Your task to perform on an android device: open chrome privacy settings Image 0: 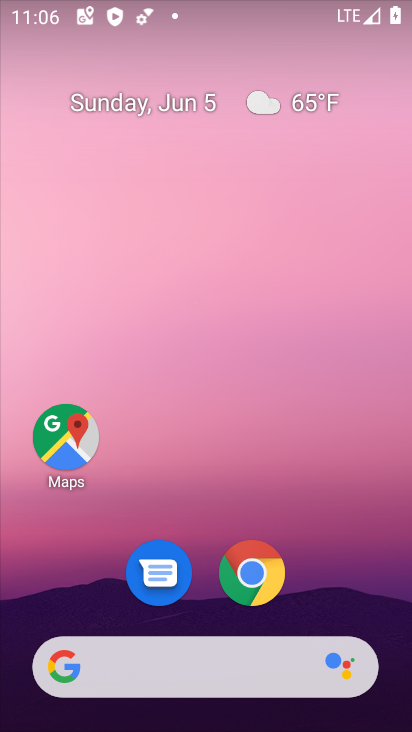
Step 0: drag from (214, 609) to (196, 183)
Your task to perform on an android device: open chrome privacy settings Image 1: 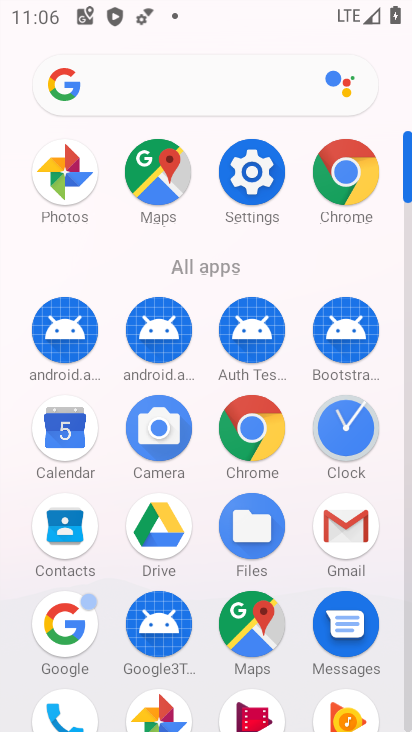
Step 1: click (225, 77)
Your task to perform on an android device: open chrome privacy settings Image 2: 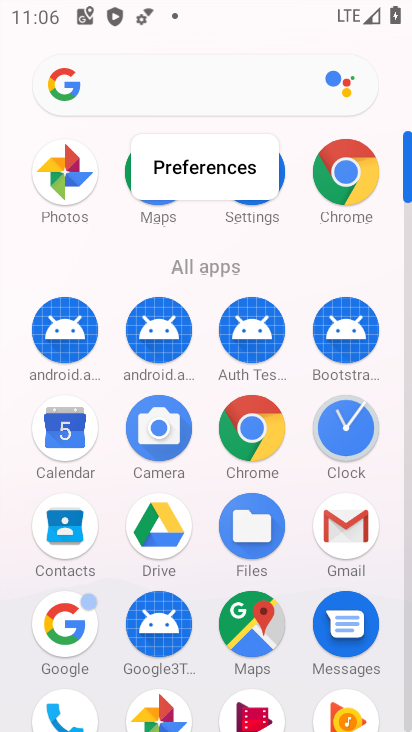
Step 2: drag from (209, 281) to (236, 88)
Your task to perform on an android device: open chrome privacy settings Image 3: 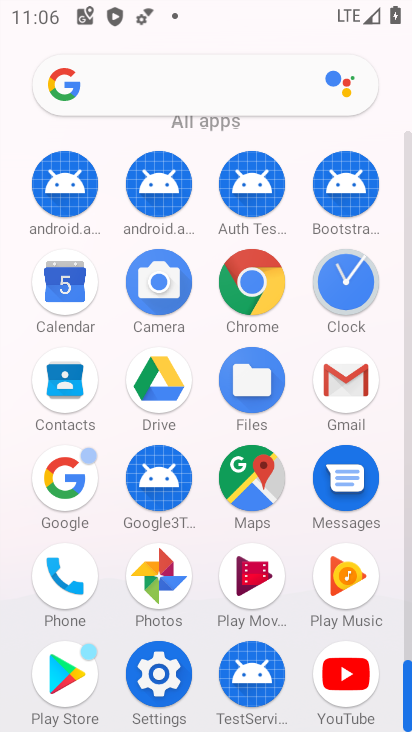
Step 3: click (263, 281)
Your task to perform on an android device: open chrome privacy settings Image 4: 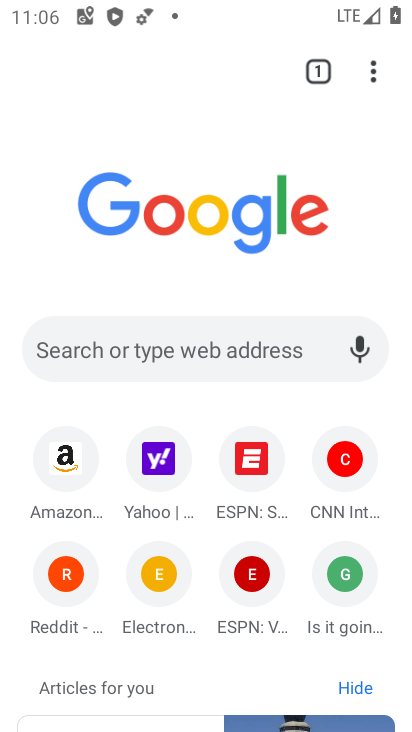
Step 4: click (372, 73)
Your task to perform on an android device: open chrome privacy settings Image 5: 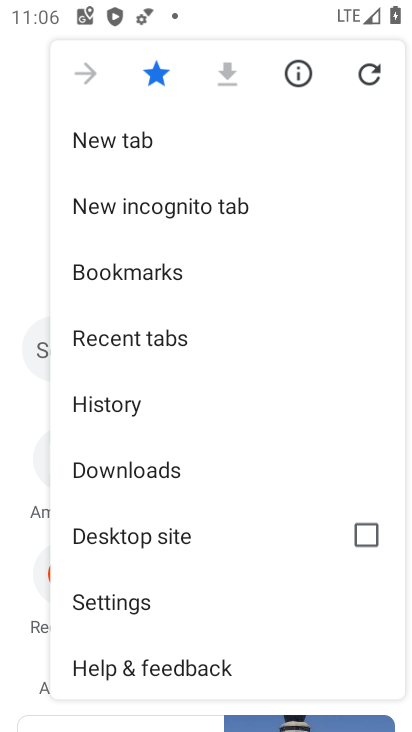
Step 5: click (161, 606)
Your task to perform on an android device: open chrome privacy settings Image 6: 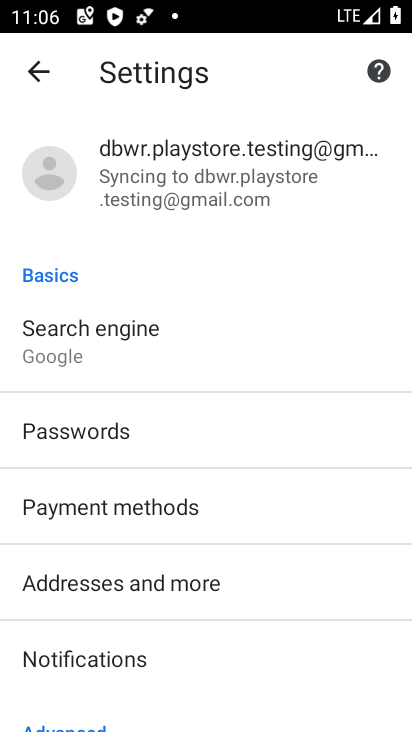
Step 6: drag from (176, 567) to (232, 243)
Your task to perform on an android device: open chrome privacy settings Image 7: 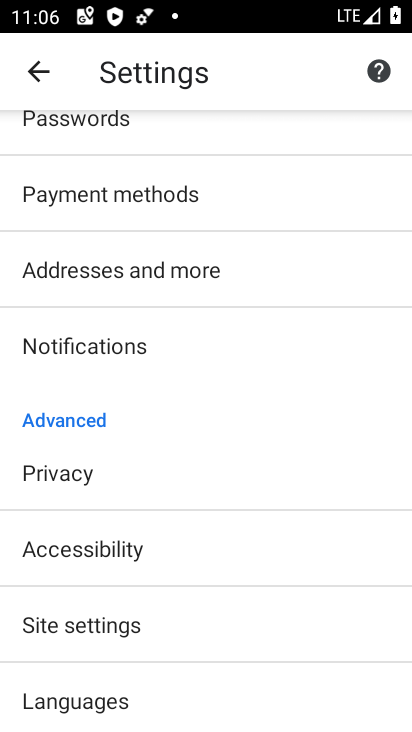
Step 7: click (128, 485)
Your task to perform on an android device: open chrome privacy settings Image 8: 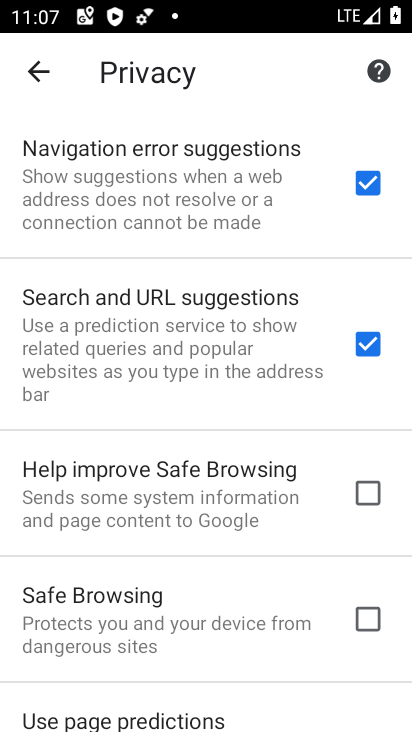
Step 8: task complete